Your task to perform on an android device: open sync settings in chrome Image 0: 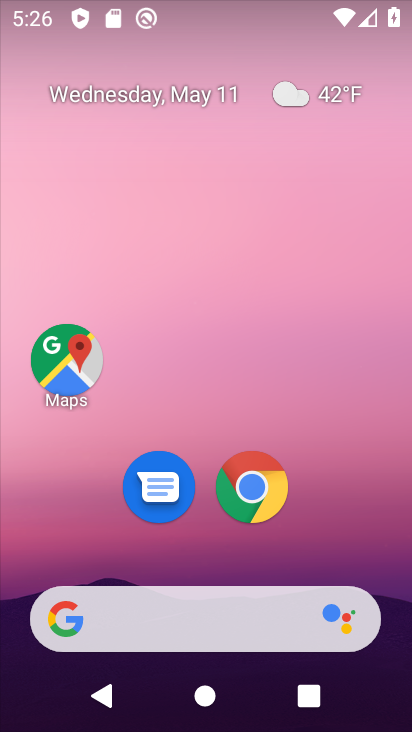
Step 0: click (265, 511)
Your task to perform on an android device: open sync settings in chrome Image 1: 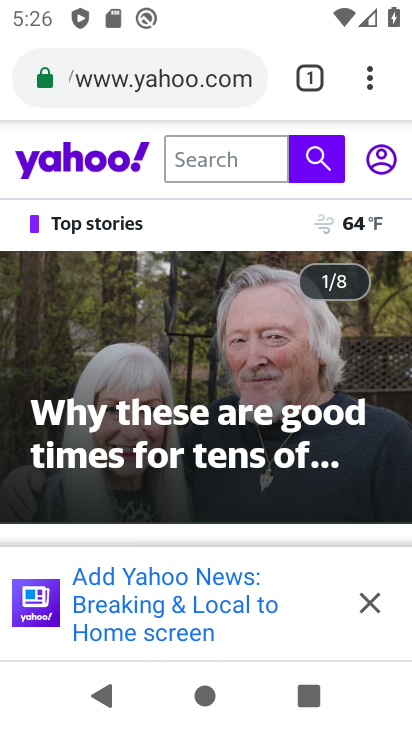
Step 1: click (373, 79)
Your task to perform on an android device: open sync settings in chrome Image 2: 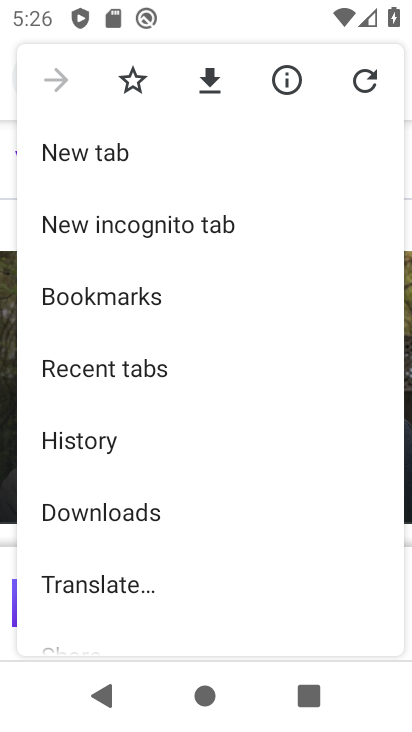
Step 2: drag from (99, 549) to (167, 198)
Your task to perform on an android device: open sync settings in chrome Image 3: 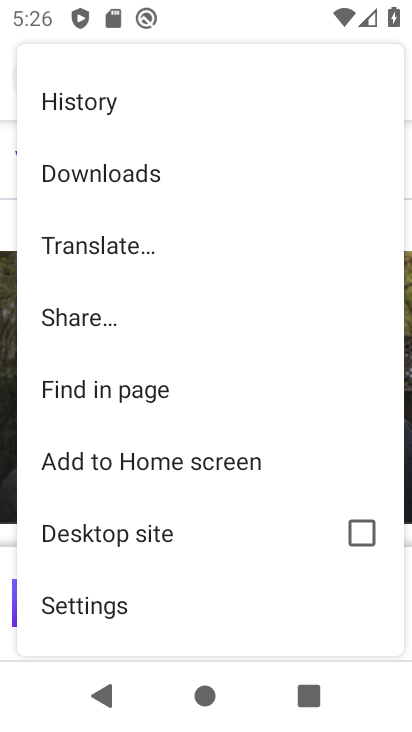
Step 3: click (115, 605)
Your task to perform on an android device: open sync settings in chrome Image 4: 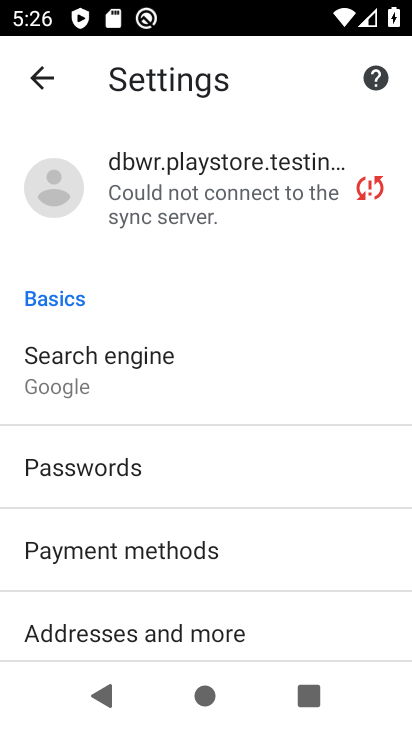
Step 4: drag from (143, 602) to (175, 335)
Your task to perform on an android device: open sync settings in chrome Image 5: 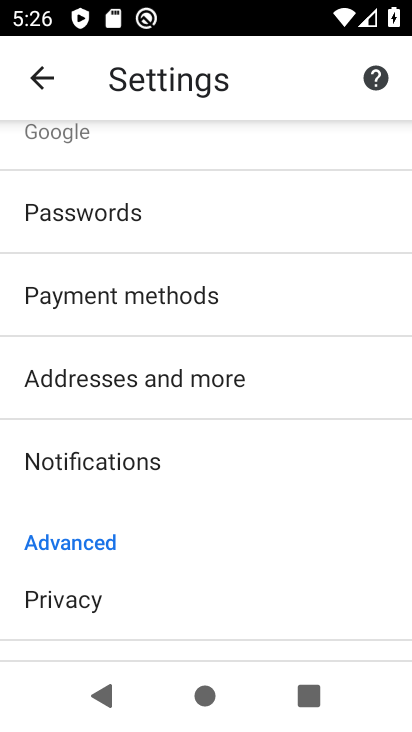
Step 5: drag from (145, 293) to (110, 584)
Your task to perform on an android device: open sync settings in chrome Image 6: 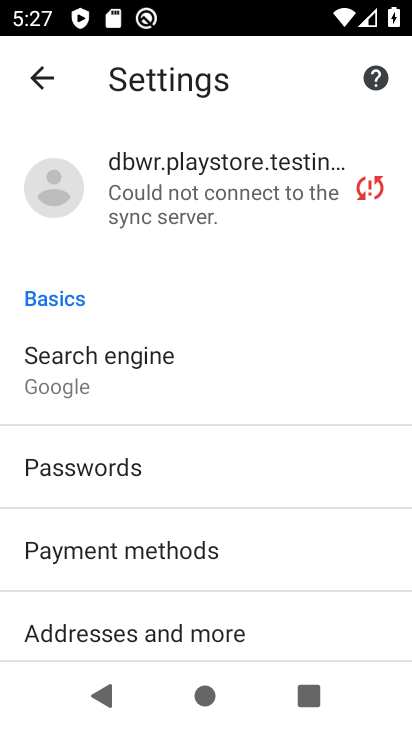
Step 6: click (191, 208)
Your task to perform on an android device: open sync settings in chrome Image 7: 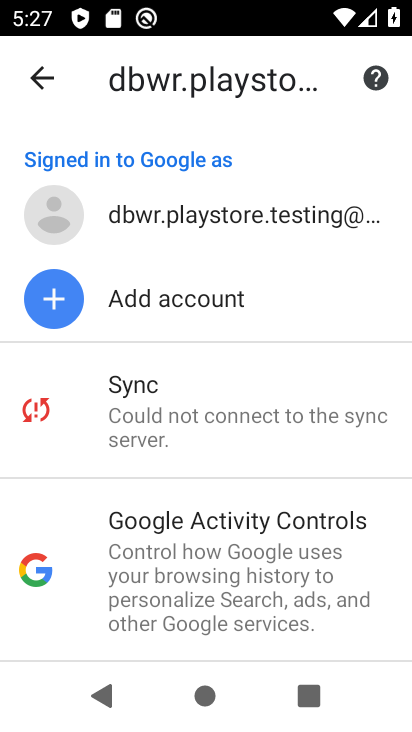
Step 7: task complete